Your task to perform on an android device: Open internet settings Image 0: 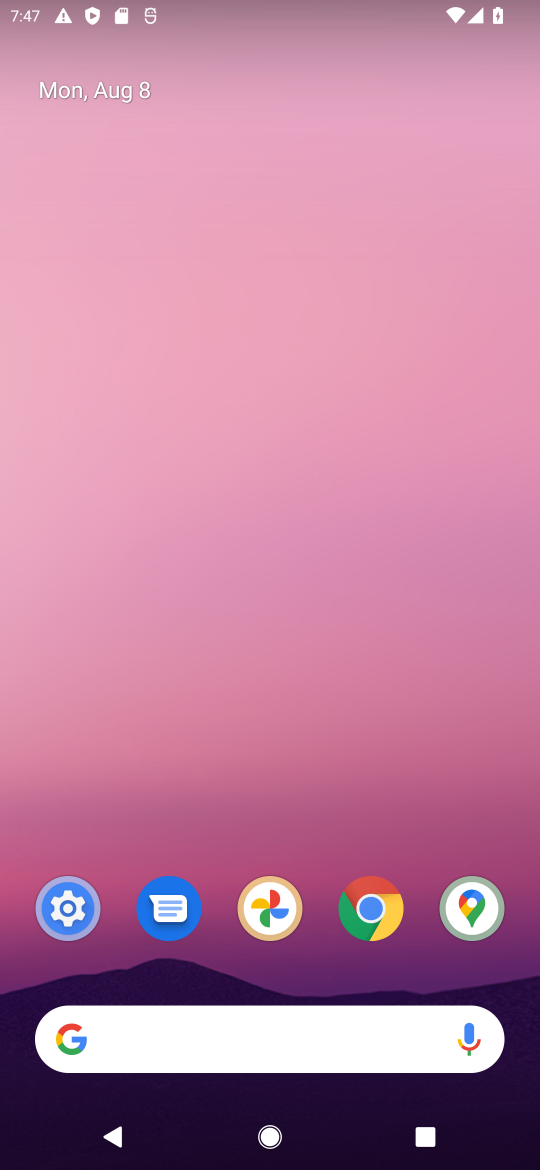
Step 0: click (61, 905)
Your task to perform on an android device: Open internet settings Image 1: 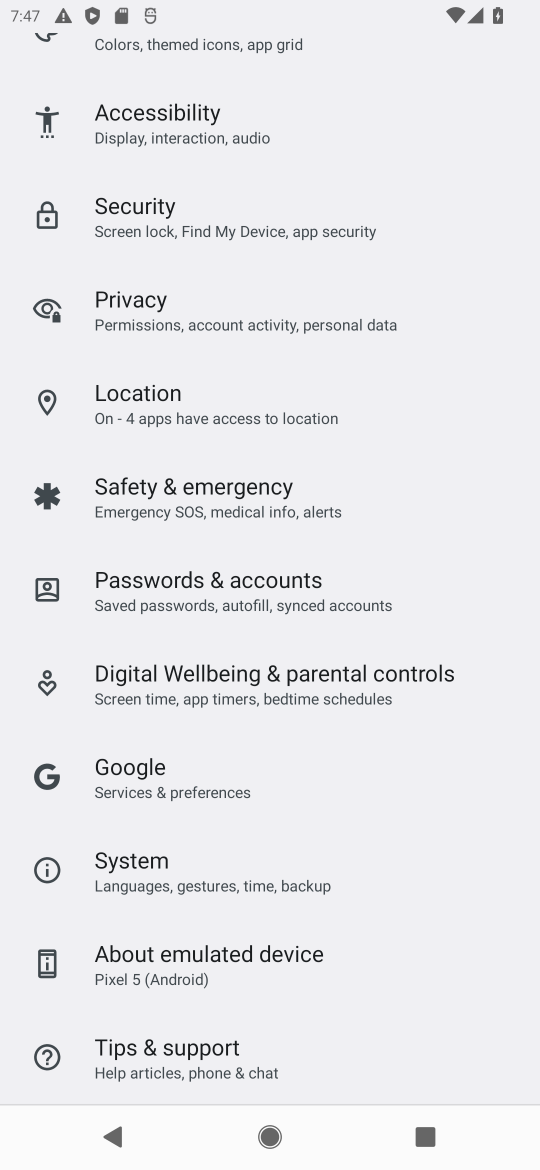
Step 1: drag from (264, 641) to (323, 861)
Your task to perform on an android device: Open internet settings Image 2: 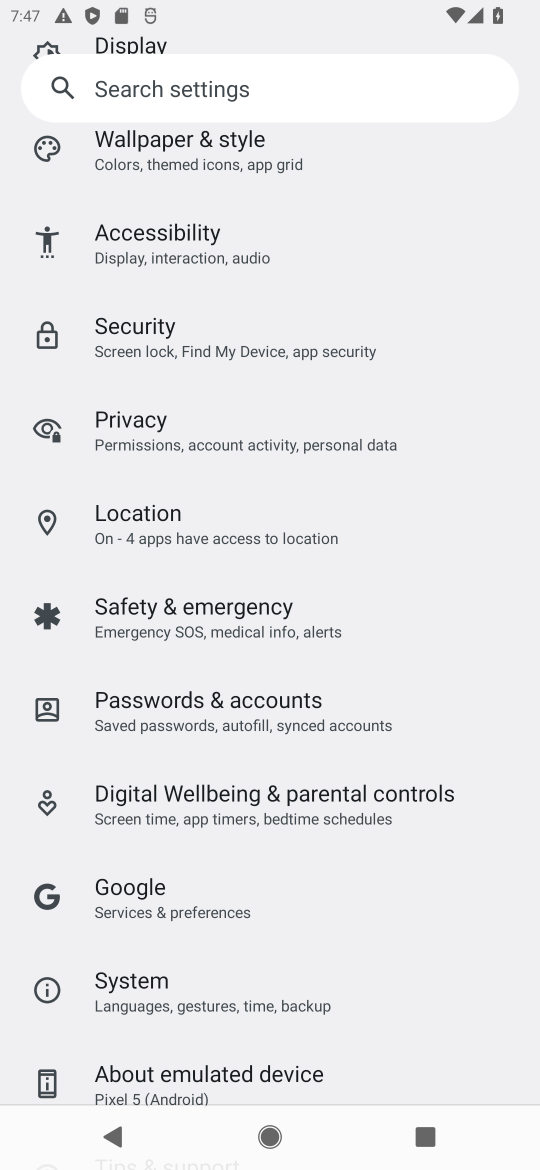
Step 2: drag from (276, 99) to (317, 1099)
Your task to perform on an android device: Open internet settings Image 3: 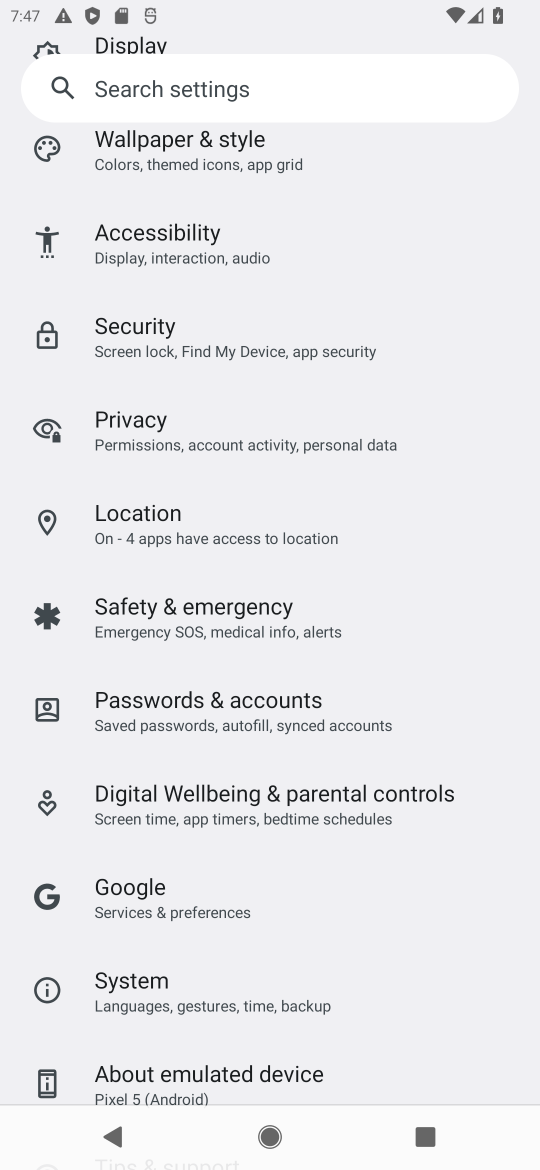
Step 3: drag from (65, 200) to (96, 967)
Your task to perform on an android device: Open internet settings Image 4: 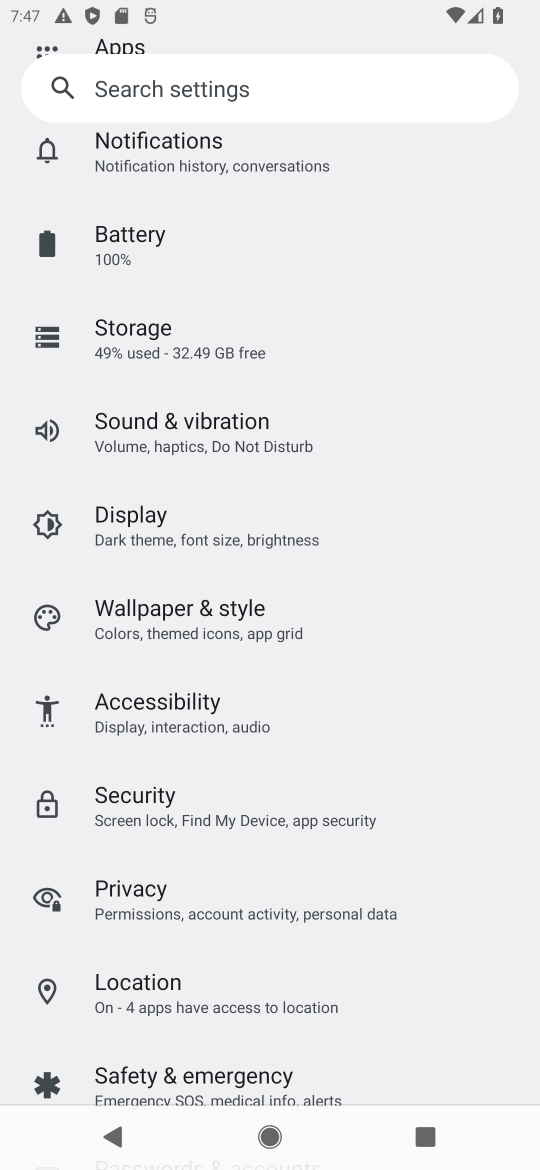
Step 4: drag from (235, 203) to (279, 1106)
Your task to perform on an android device: Open internet settings Image 5: 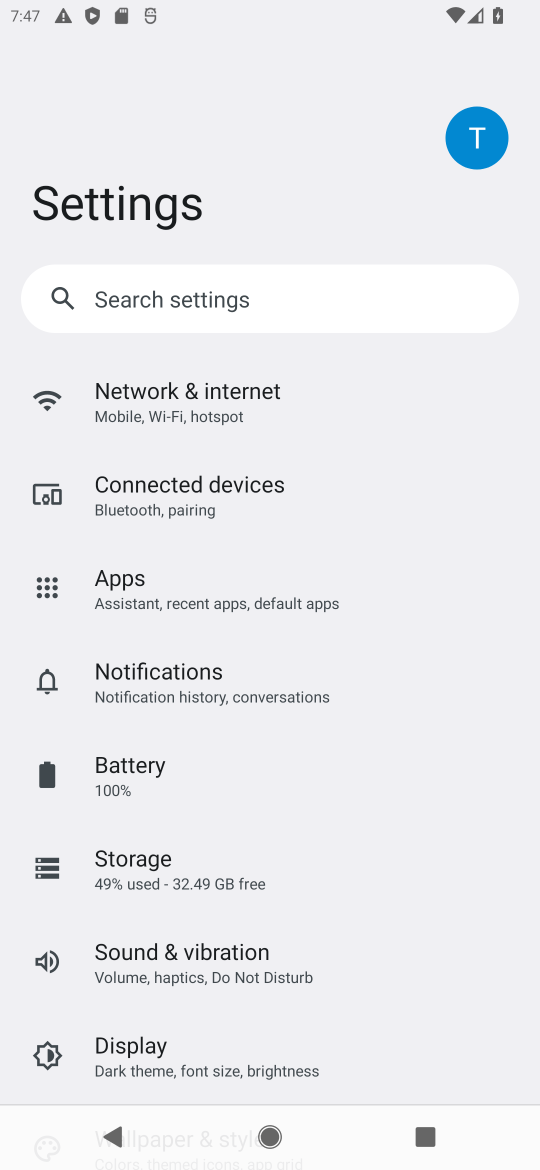
Step 5: click (161, 352)
Your task to perform on an android device: Open internet settings Image 6: 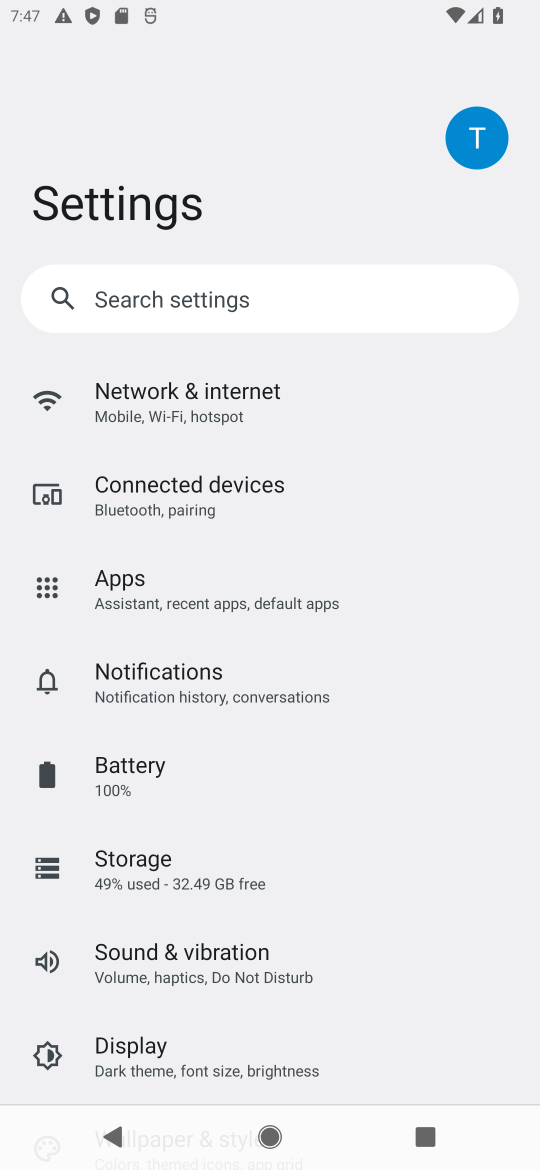
Step 6: click (188, 405)
Your task to perform on an android device: Open internet settings Image 7: 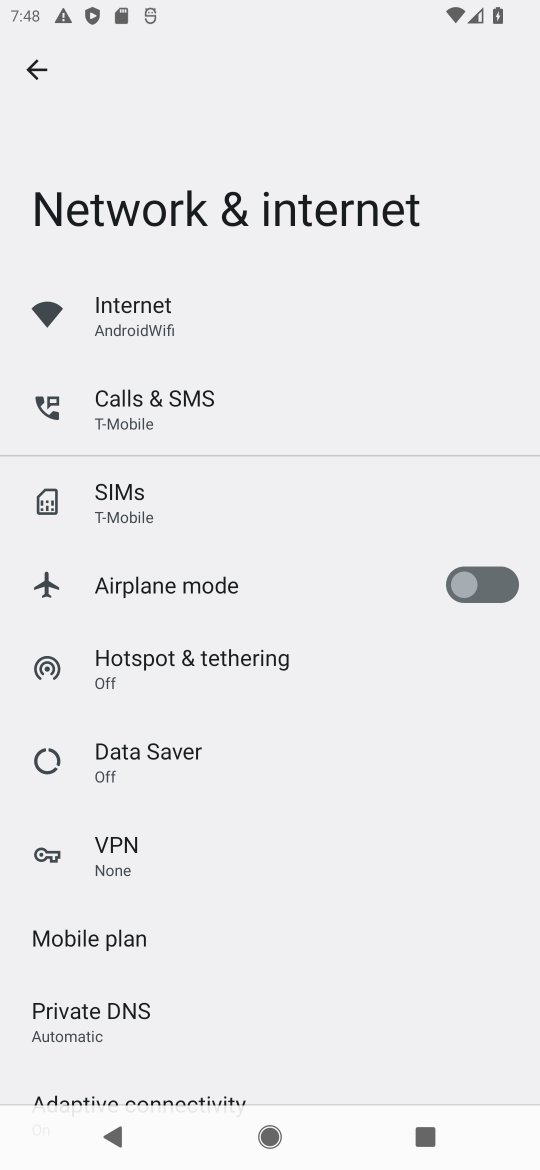
Step 7: task complete